Your task to perform on an android device: Go to notification settings Image 0: 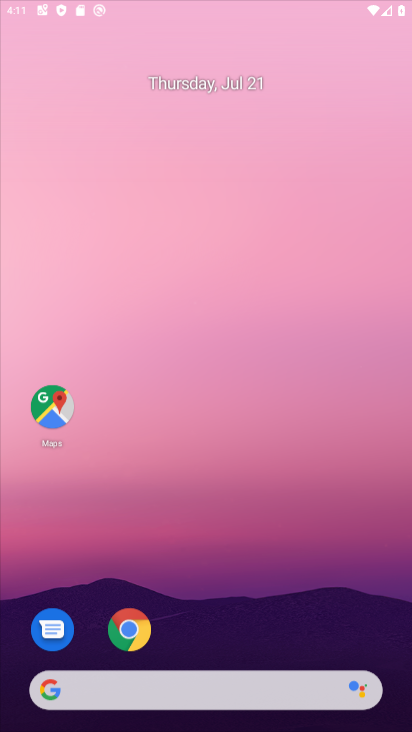
Step 0: click (124, 631)
Your task to perform on an android device: Go to notification settings Image 1: 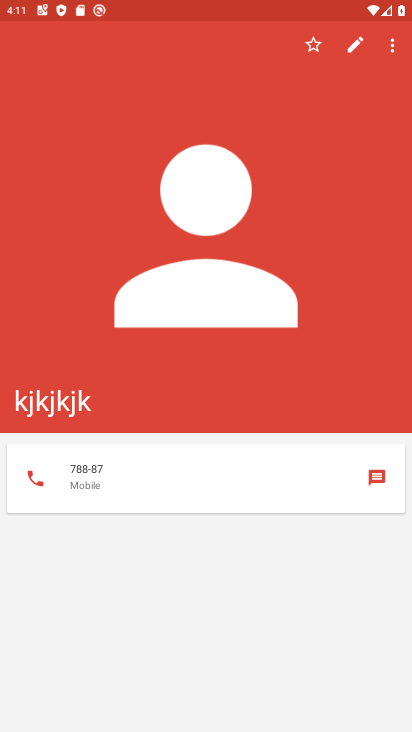
Step 1: press home button
Your task to perform on an android device: Go to notification settings Image 2: 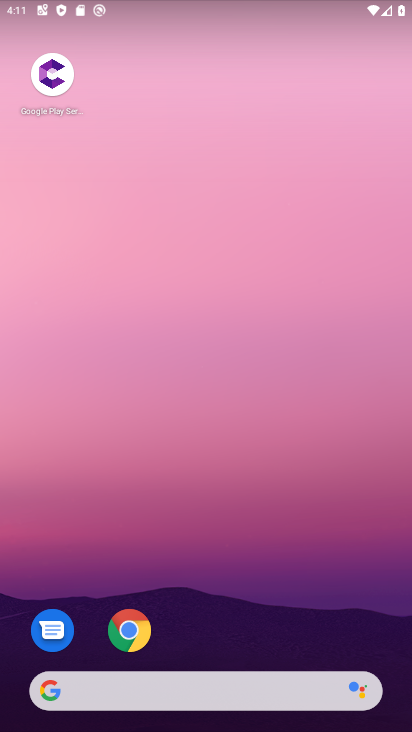
Step 2: drag from (19, 701) to (365, 35)
Your task to perform on an android device: Go to notification settings Image 3: 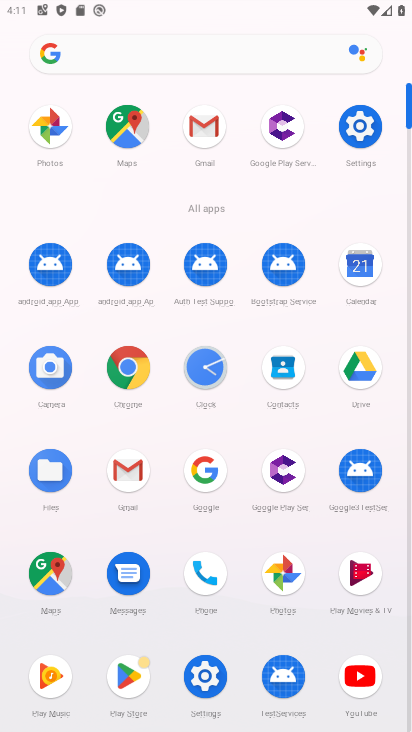
Step 3: click (212, 686)
Your task to perform on an android device: Go to notification settings Image 4: 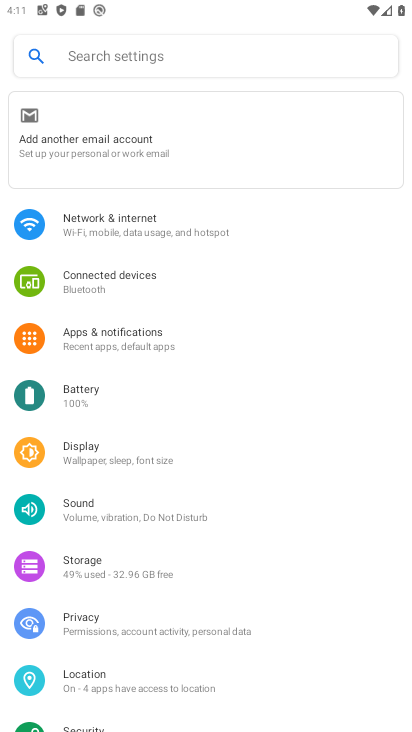
Step 4: click (146, 344)
Your task to perform on an android device: Go to notification settings Image 5: 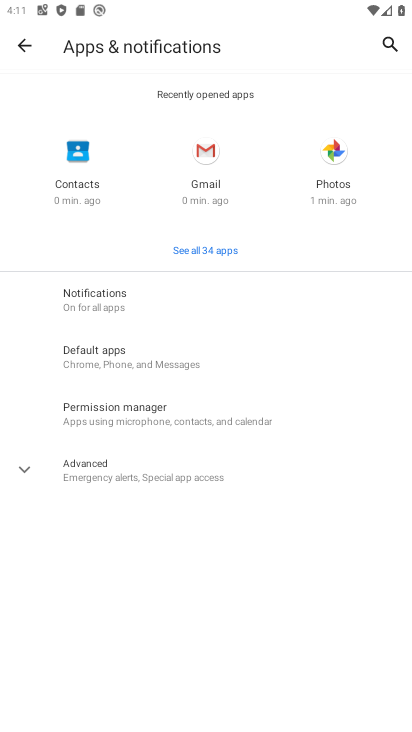
Step 5: click (123, 307)
Your task to perform on an android device: Go to notification settings Image 6: 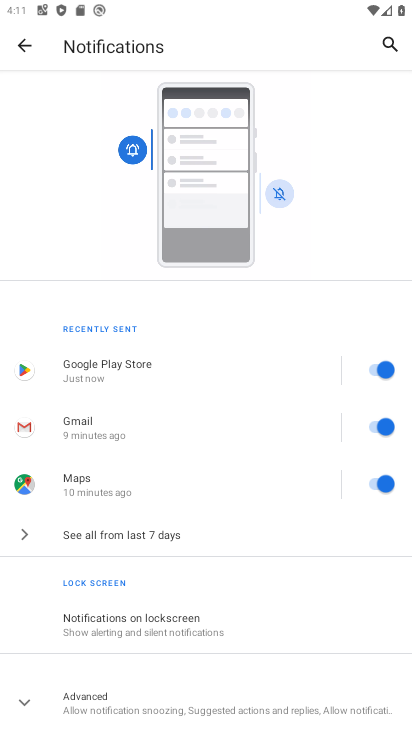
Step 6: drag from (322, 411) to (329, 376)
Your task to perform on an android device: Go to notification settings Image 7: 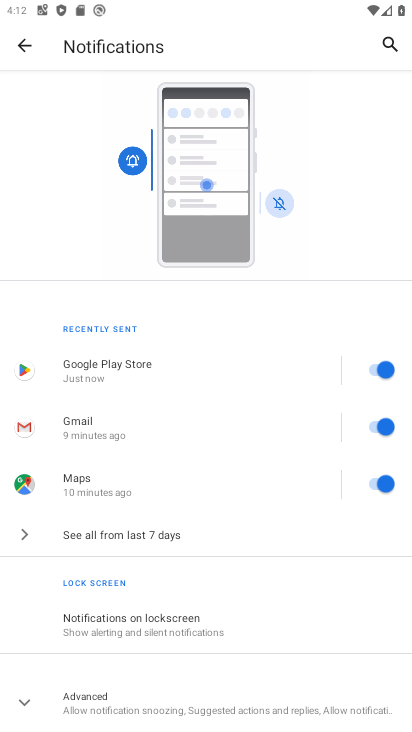
Step 7: click (127, 702)
Your task to perform on an android device: Go to notification settings Image 8: 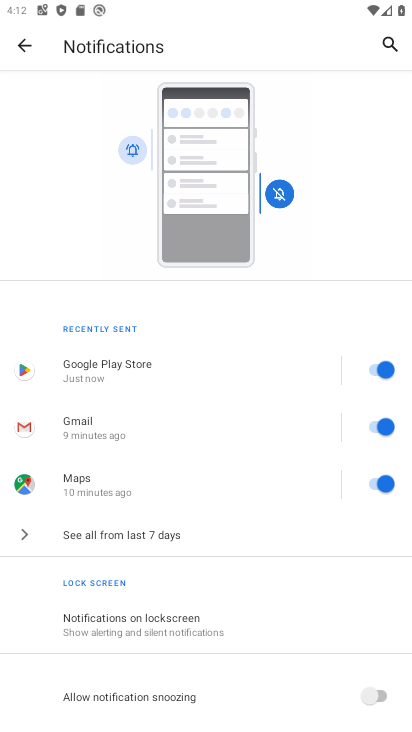
Step 8: task complete